Your task to perform on an android device: open app "Flipkart Online Shopping App" (install if not already installed) Image 0: 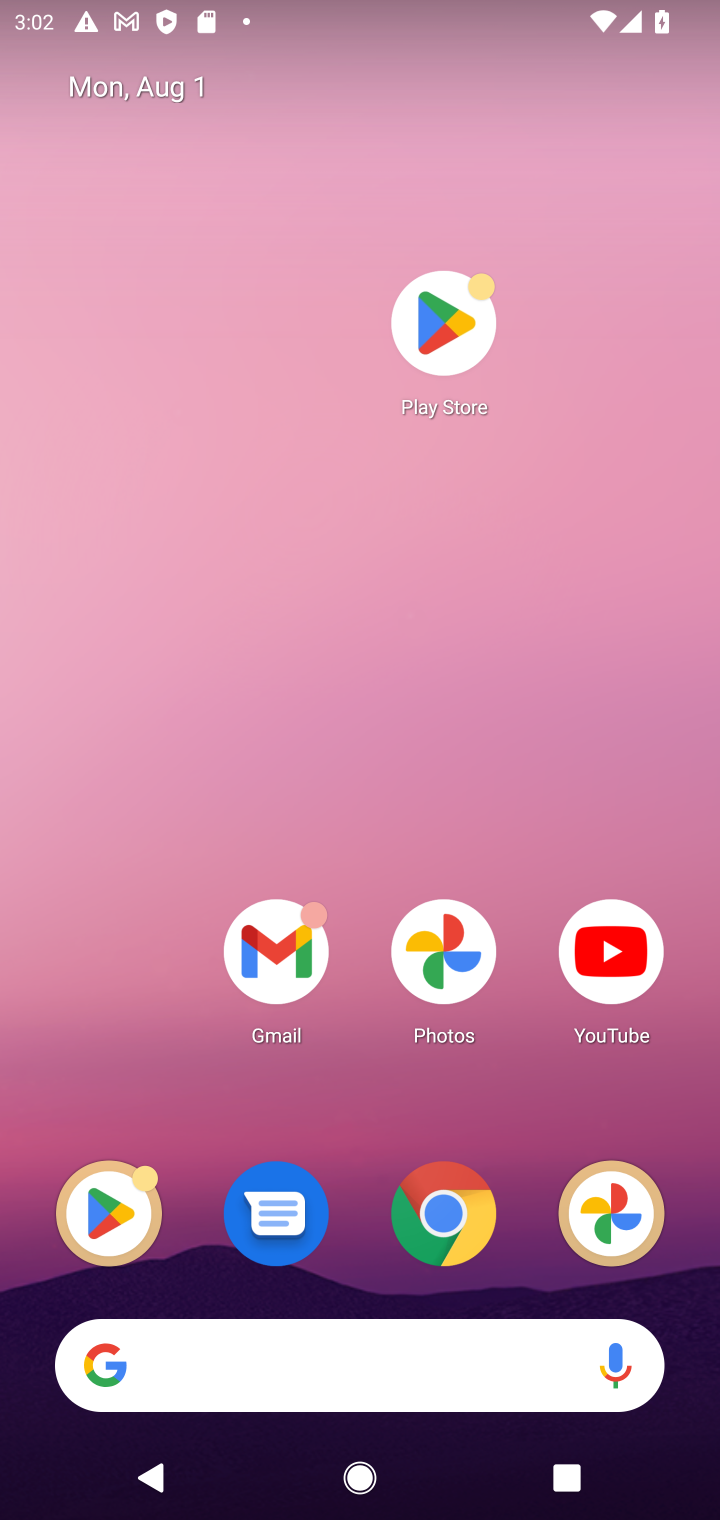
Step 0: click (426, 313)
Your task to perform on an android device: open app "Flipkart Online Shopping App" (install if not already installed) Image 1: 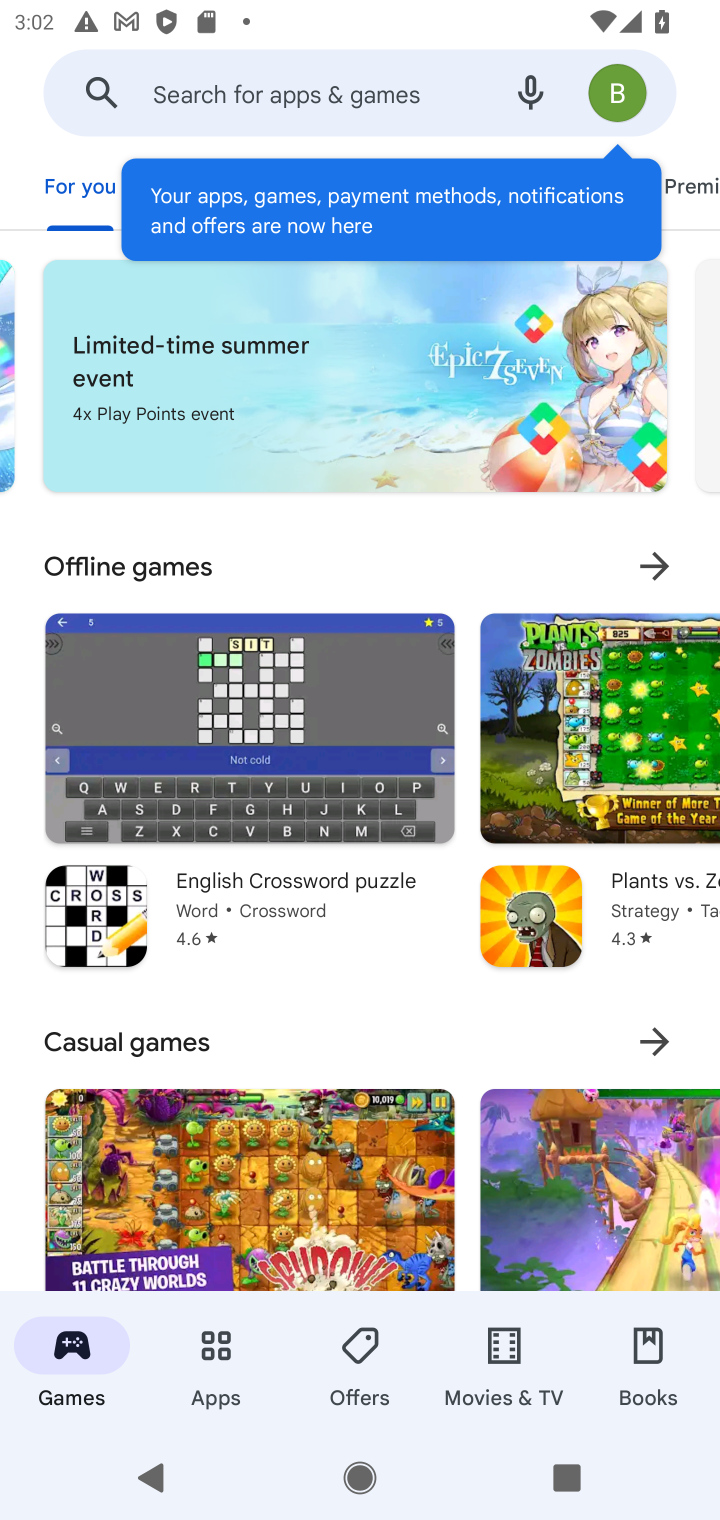
Step 1: click (328, 86)
Your task to perform on an android device: open app "Flipkart Online Shopping App" (install if not already installed) Image 2: 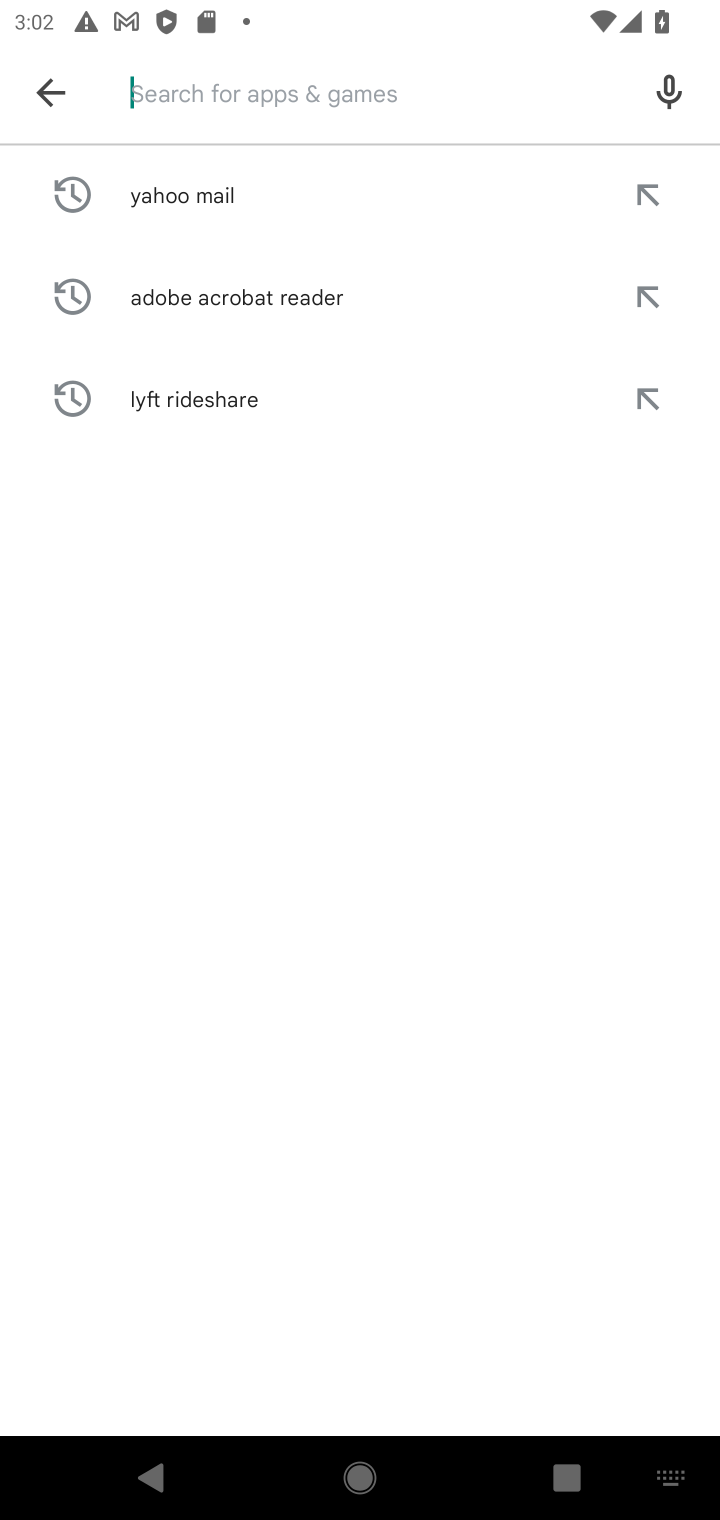
Step 2: type "flip"
Your task to perform on an android device: open app "Flipkart Online Shopping App" (install if not already installed) Image 3: 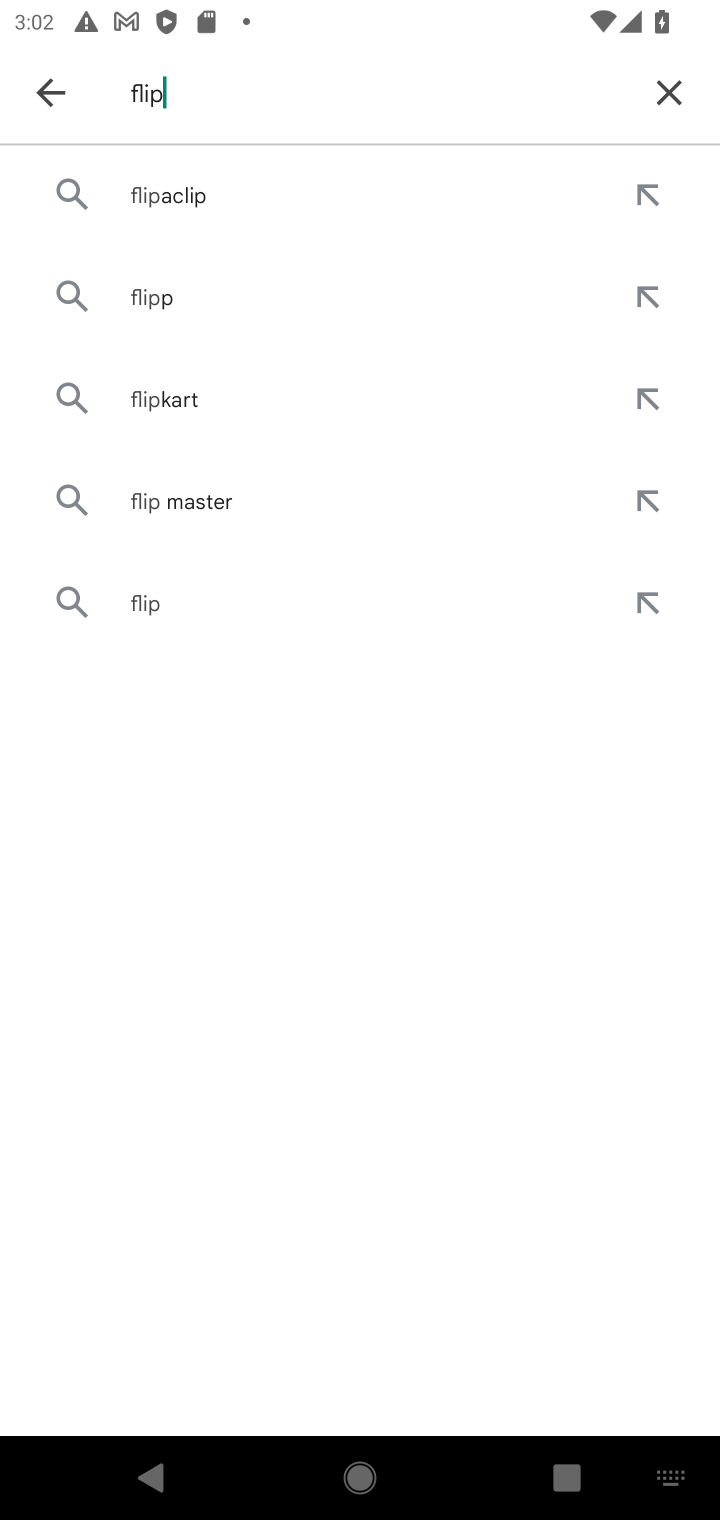
Step 3: click (143, 384)
Your task to perform on an android device: open app "Flipkart Online Shopping App" (install if not already installed) Image 4: 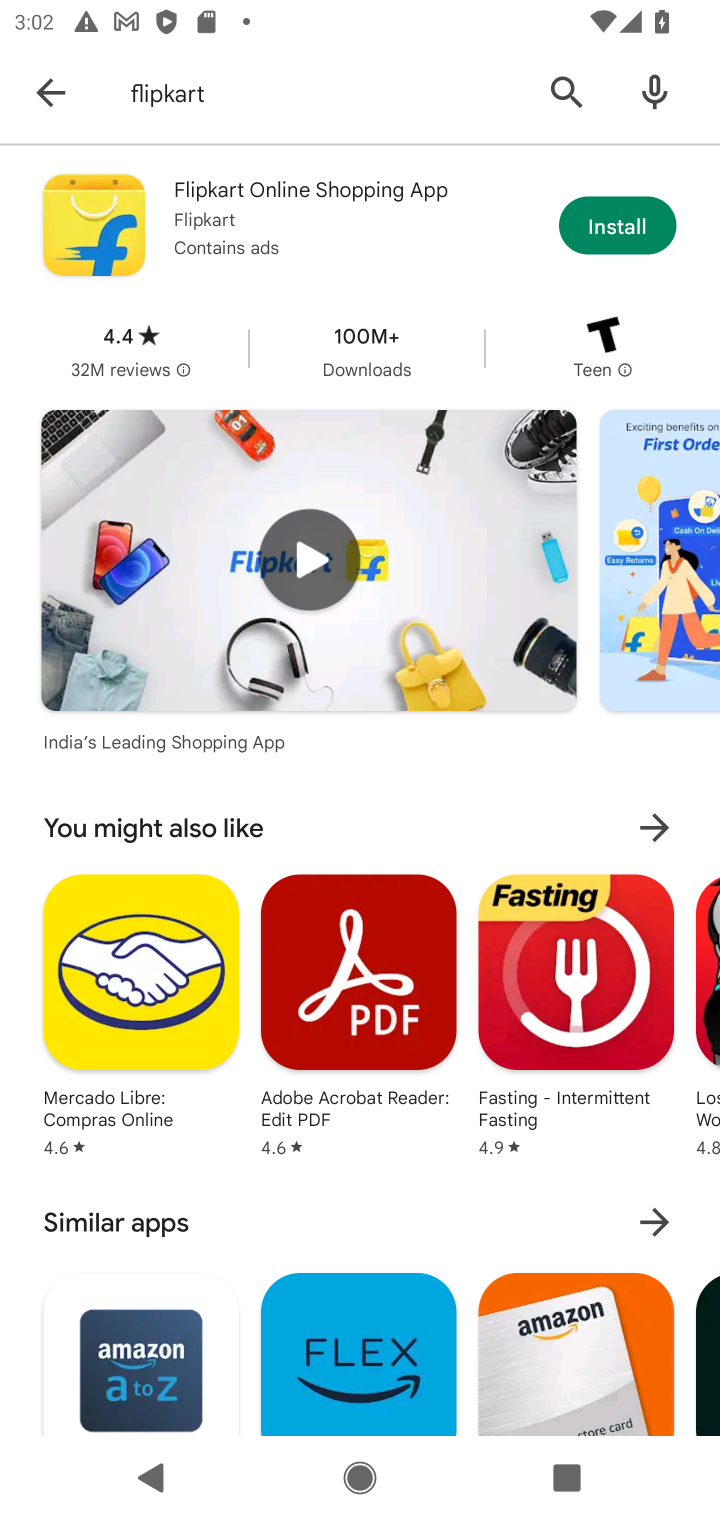
Step 4: click (585, 232)
Your task to perform on an android device: open app "Flipkart Online Shopping App" (install if not already installed) Image 5: 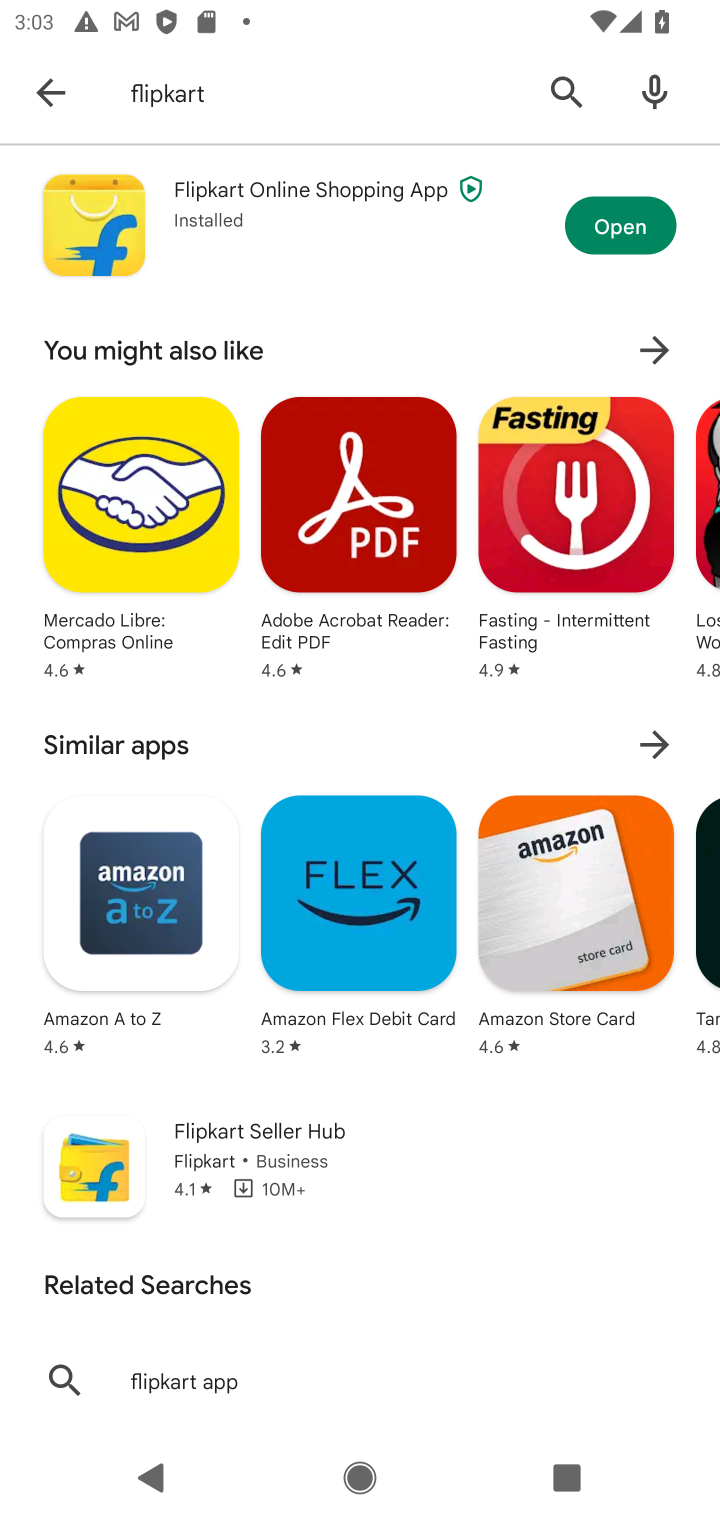
Step 5: click (619, 241)
Your task to perform on an android device: open app "Flipkart Online Shopping App" (install if not already installed) Image 6: 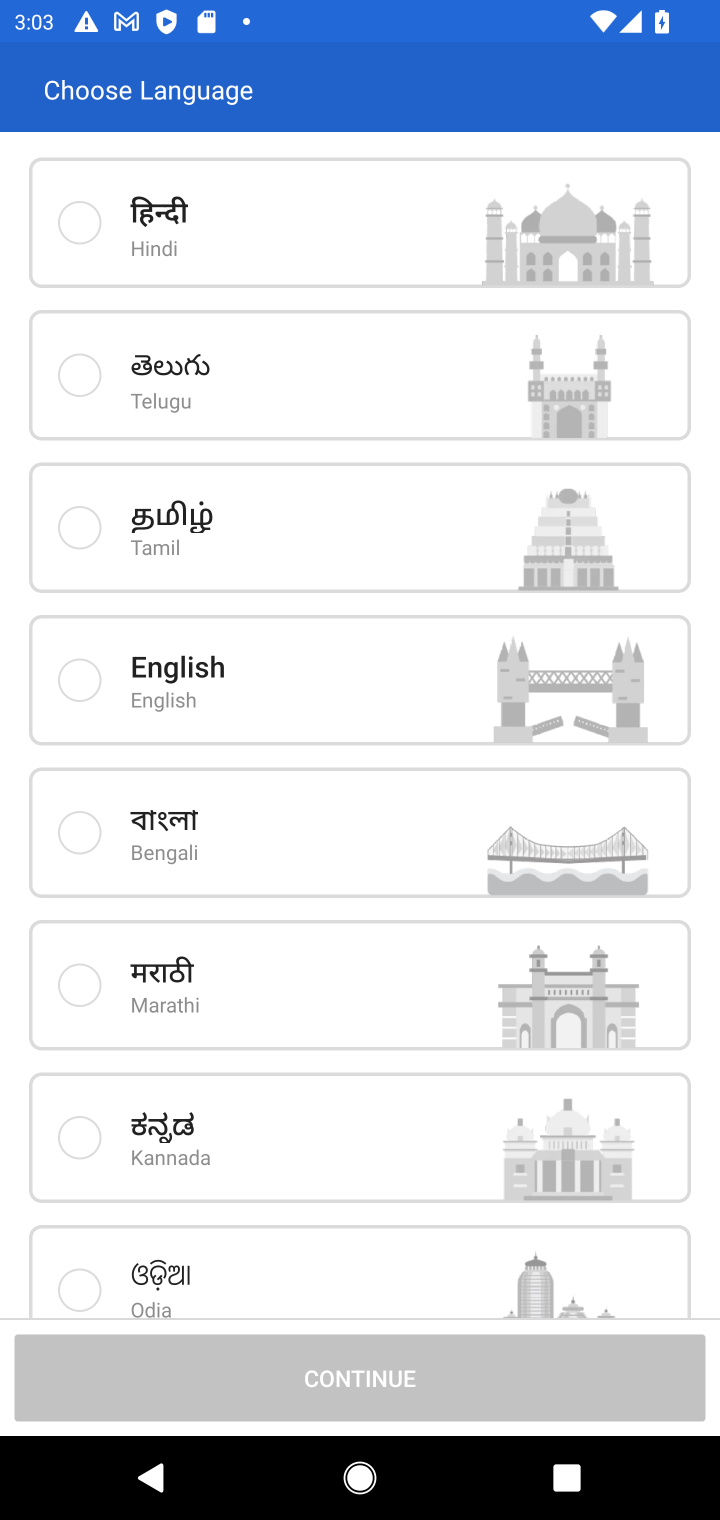
Step 6: task complete